Your task to perform on an android device: Open settings on Google Maps Image 0: 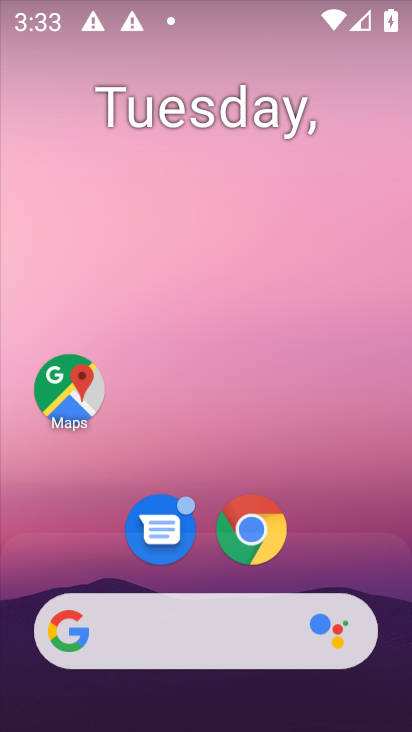
Step 0: drag from (335, 562) to (321, 314)
Your task to perform on an android device: Open settings on Google Maps Image 1: 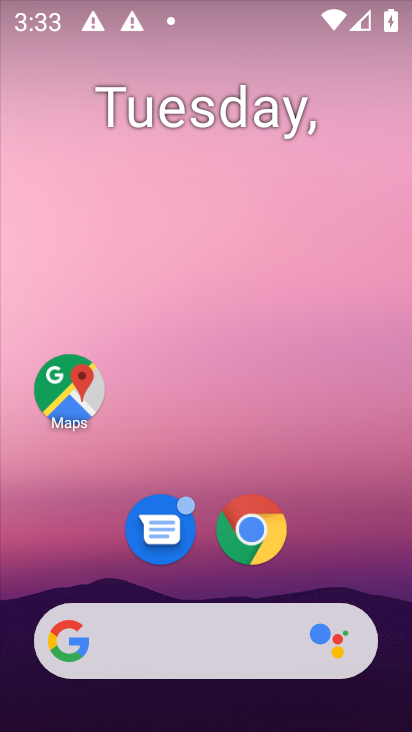
Step 1: click (80, 399)
Your task to perform on an android device: Open settings on Google Maps Image 2: 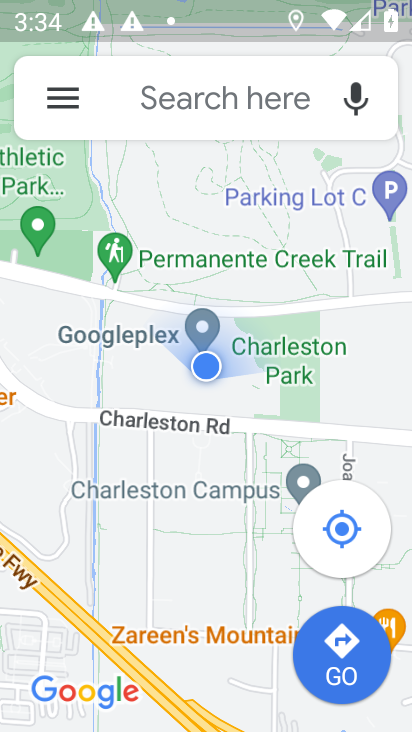
Step 2: click (56, 125)
Your task to perform on an android device: Open settings on Google Maps Image 3: 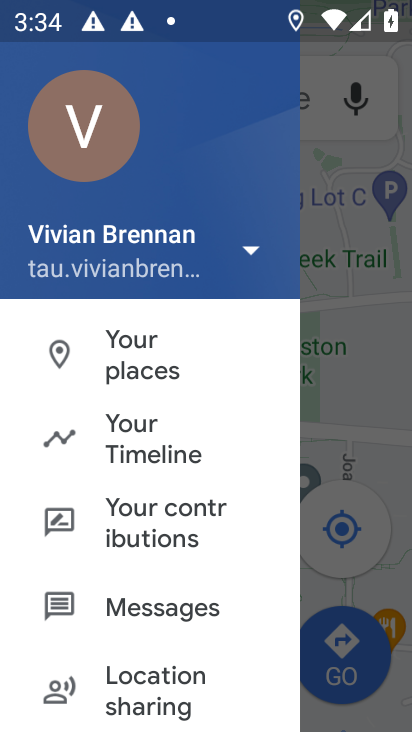
Step 3: drag from (266, 593) to (185, 48)
Your task to perform on an android device: Open settings on Google Maps Image 4: 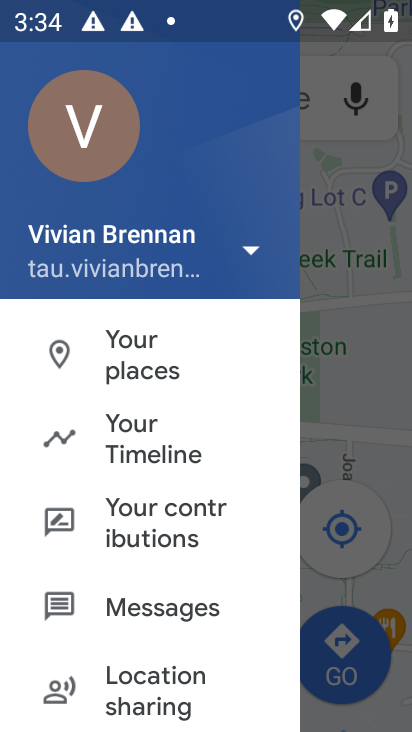
Step 4: drag from (199, 418) to (136, 92)
Your task to perform on an android device: Open settings on Google Maps Image 5: 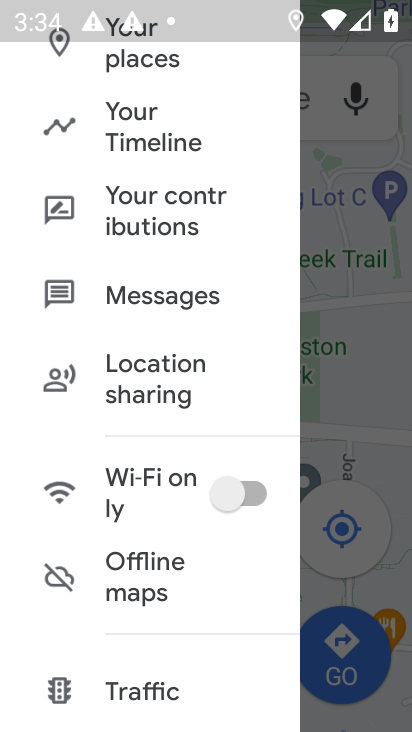
Step 5: drag from (176, 659) to (140, 198)
Your task to perform on an android device: Open settings on Google Maps Image 6: 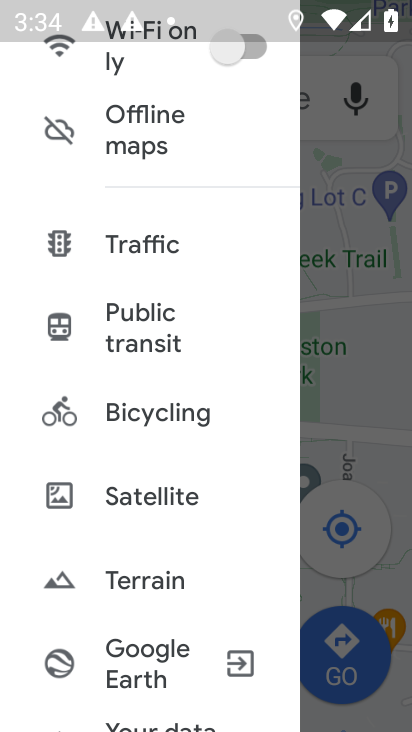
Step 6: drag from (170, 712) to (164, 305)
Your task to perform on an android device: Open settings on Google Maps Image 7: 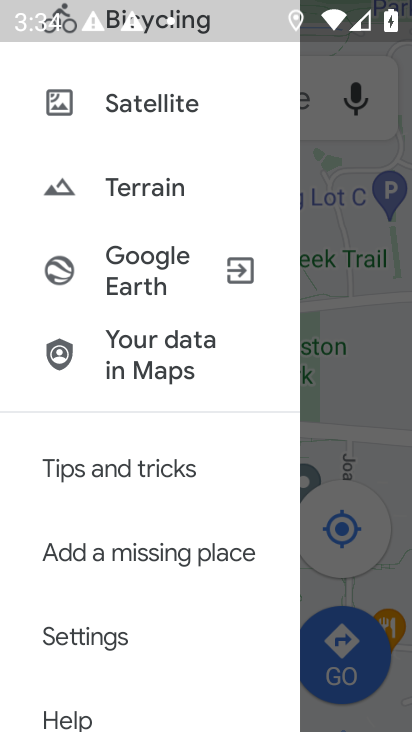
Step 7: click (123, 624)
Your task to perform on an android device: Open settings on Google Maps Image 8: 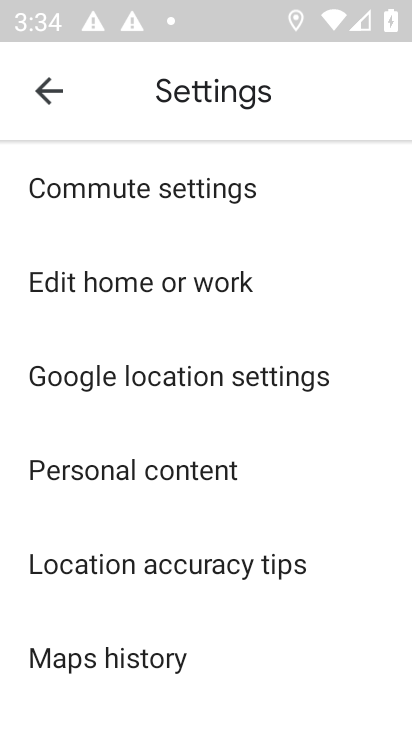
Step 8: task complete